Your task to perform on an android device: Open internet settings Image 0: 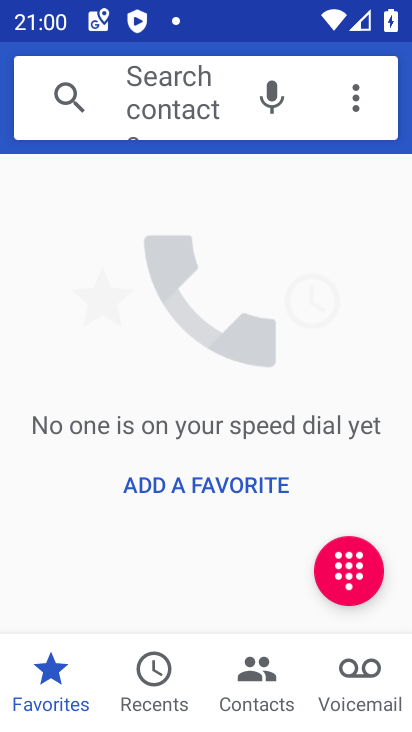
Step 0: press home button
Your task to perform on an android device: Open internet settings Image 1: 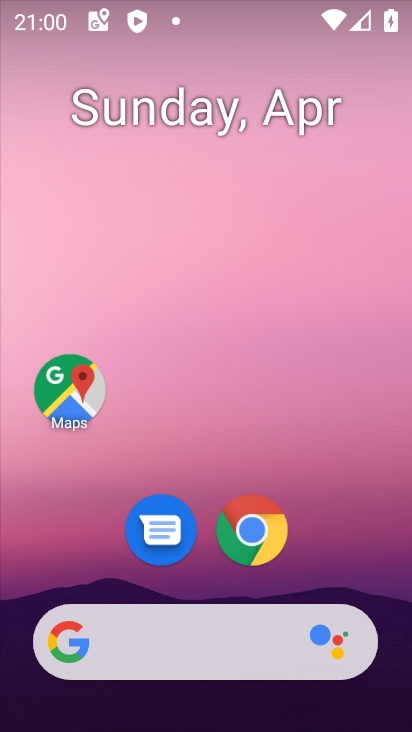
Step 1: drag from (191, 484) to (199, 120)
Your task to perform on an android device: Open internet settings Image 2: 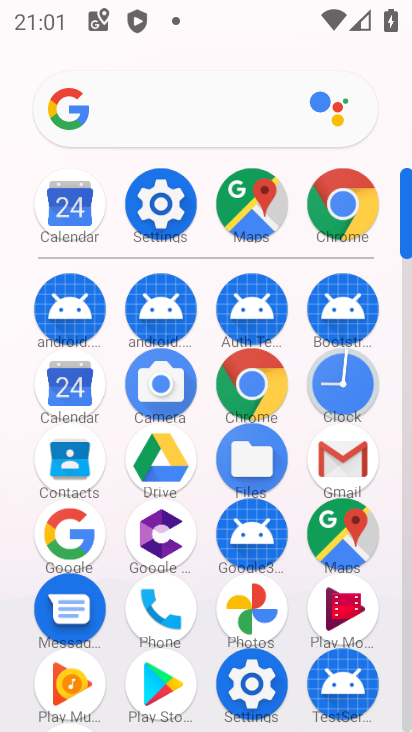
Step 2: click (170, 193)
Your task to perform on an android device: Open internet settings Image 3: 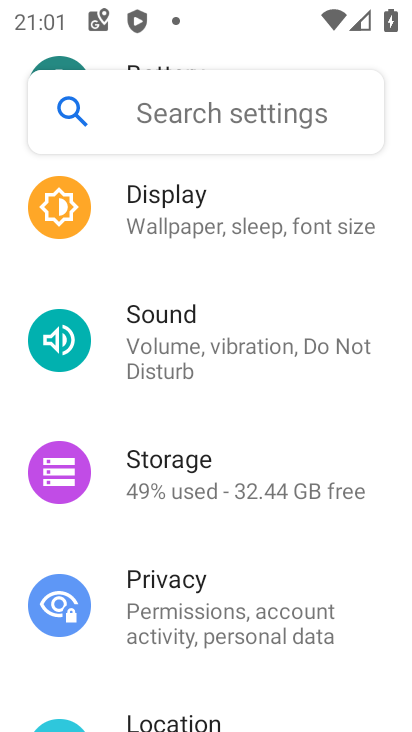
Step 3: drag from (230, 202) to (255, 542)
Your task to perform on an android device: Open internet settings Image 4: 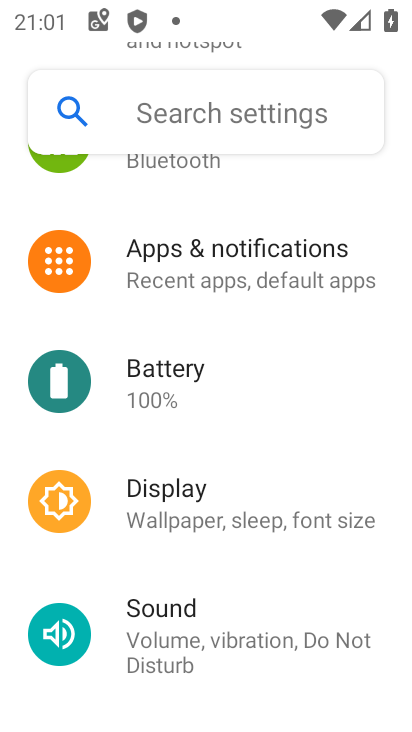
Step 4: drag from (227, 211) to (250, 584)
Your task to perform on an android device: Open internet settings Image 5: 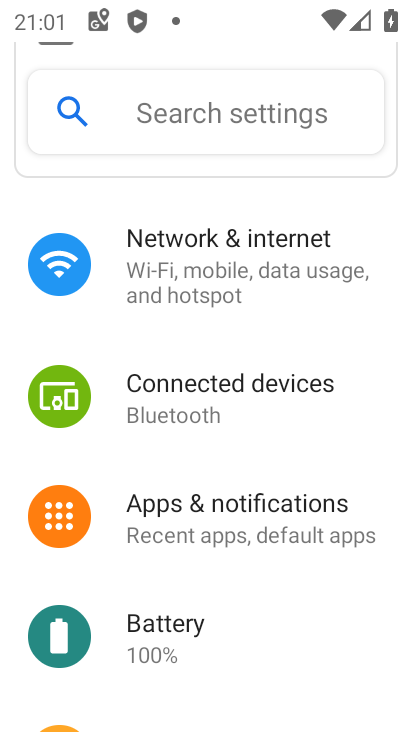
Step 5: click (236, 270)
Your task to perform on an android device: Open internet settings Image 6: 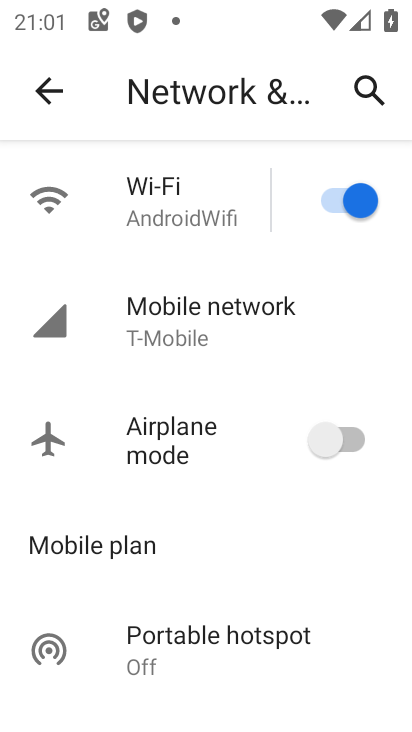
Step 6: task complete